Your task to perform on an android device: uninstall "DuckDuckGo Privacy Browser" Image 0: 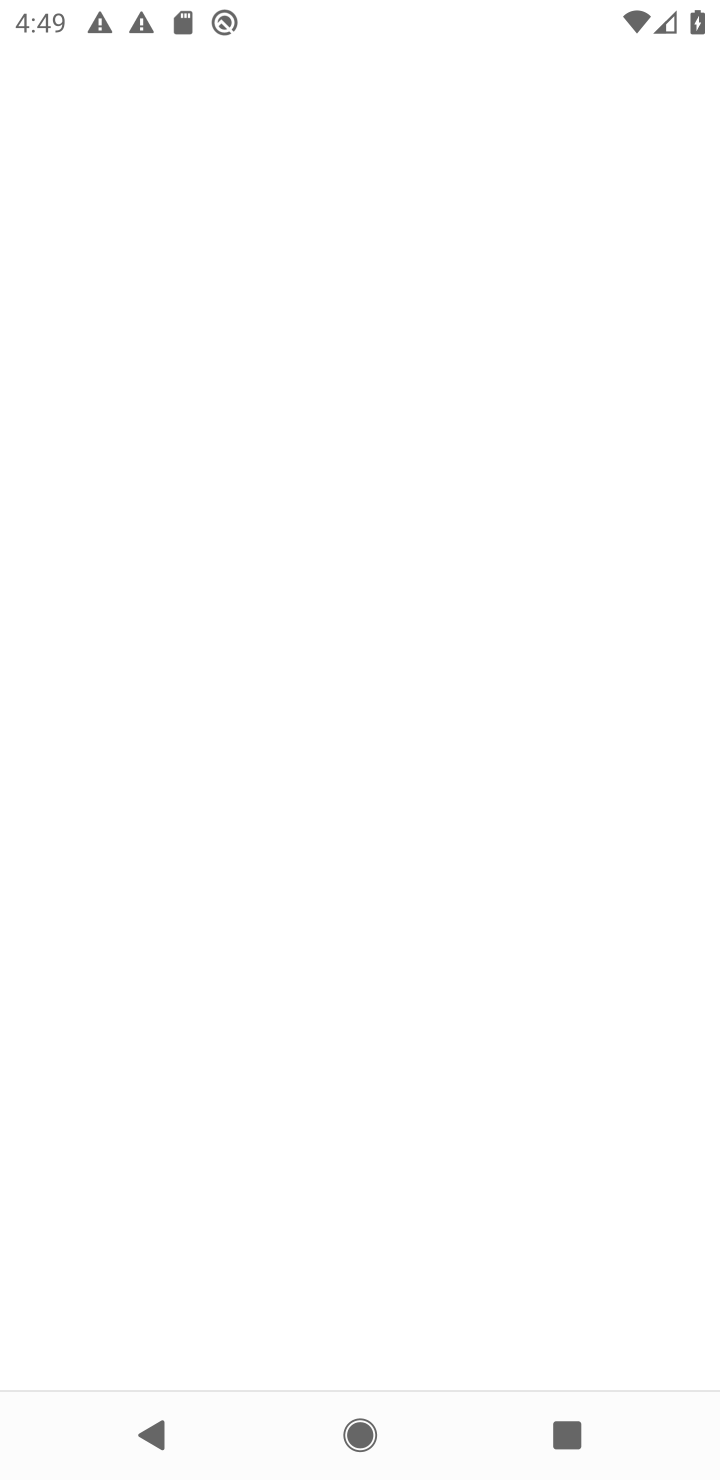
Step 0: click (320, 119)
Your task to perform on an android device: uninstall "DuckDuckGo Privacy Browser" Image 1: 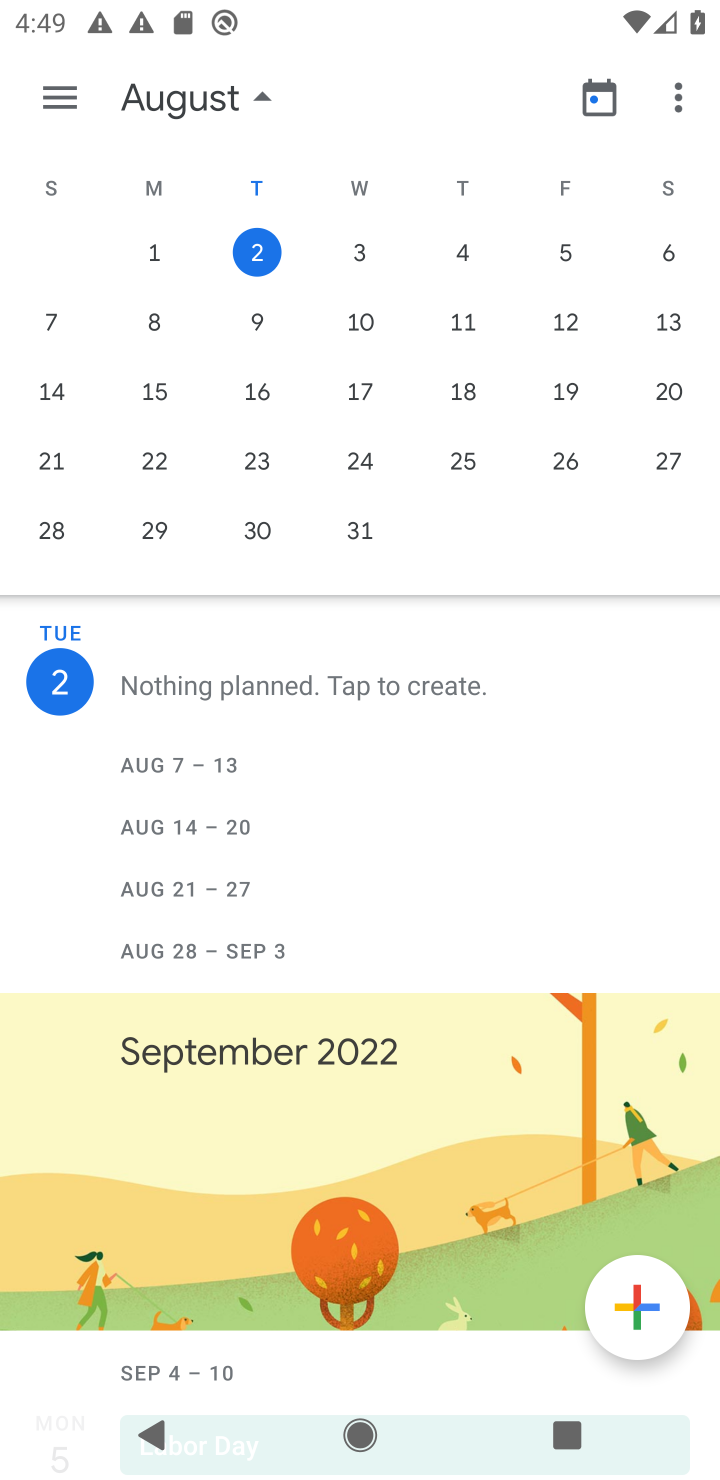
Step 1: press home button
Your task to perform on an android device: uninstall "DuckDuckGo Privacy Browser" Image 2: 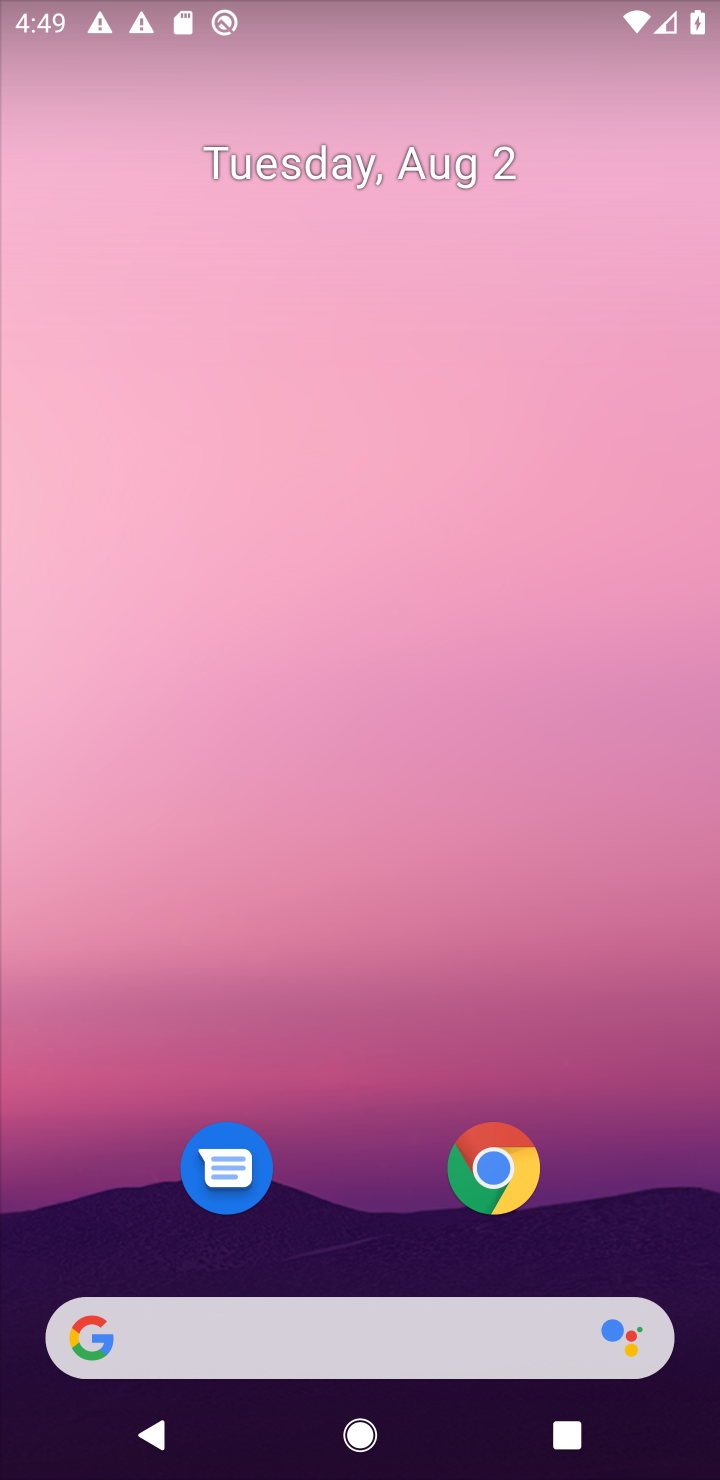
Step 2: drag from (292, 1223) to (331, 3)
Your task to perform on an android device: uninstall "DuckDuckGo Privacy Browser" Image 3: 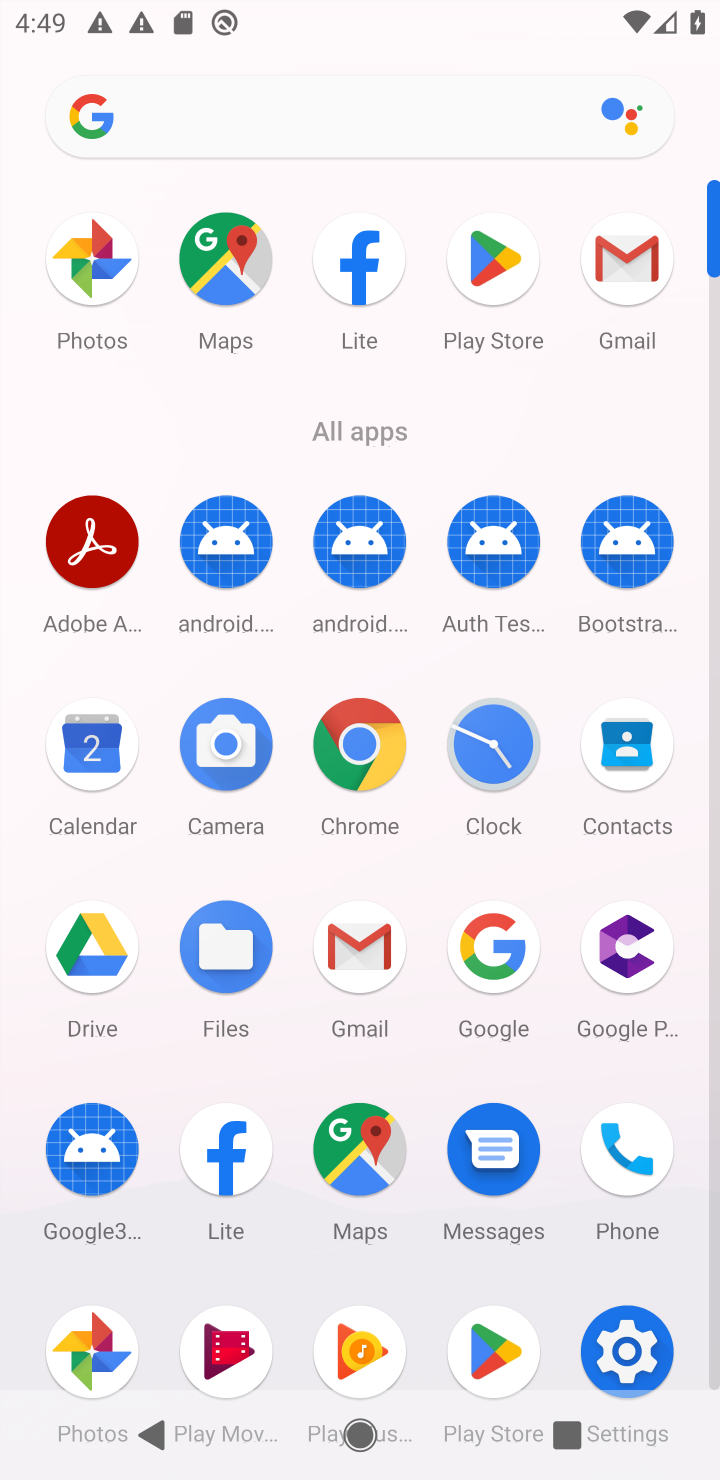
Step 3: click (511, 293)
Your task to perform on an android device: uninstall "DuckDuckGo Privacy Browser" Image 4: 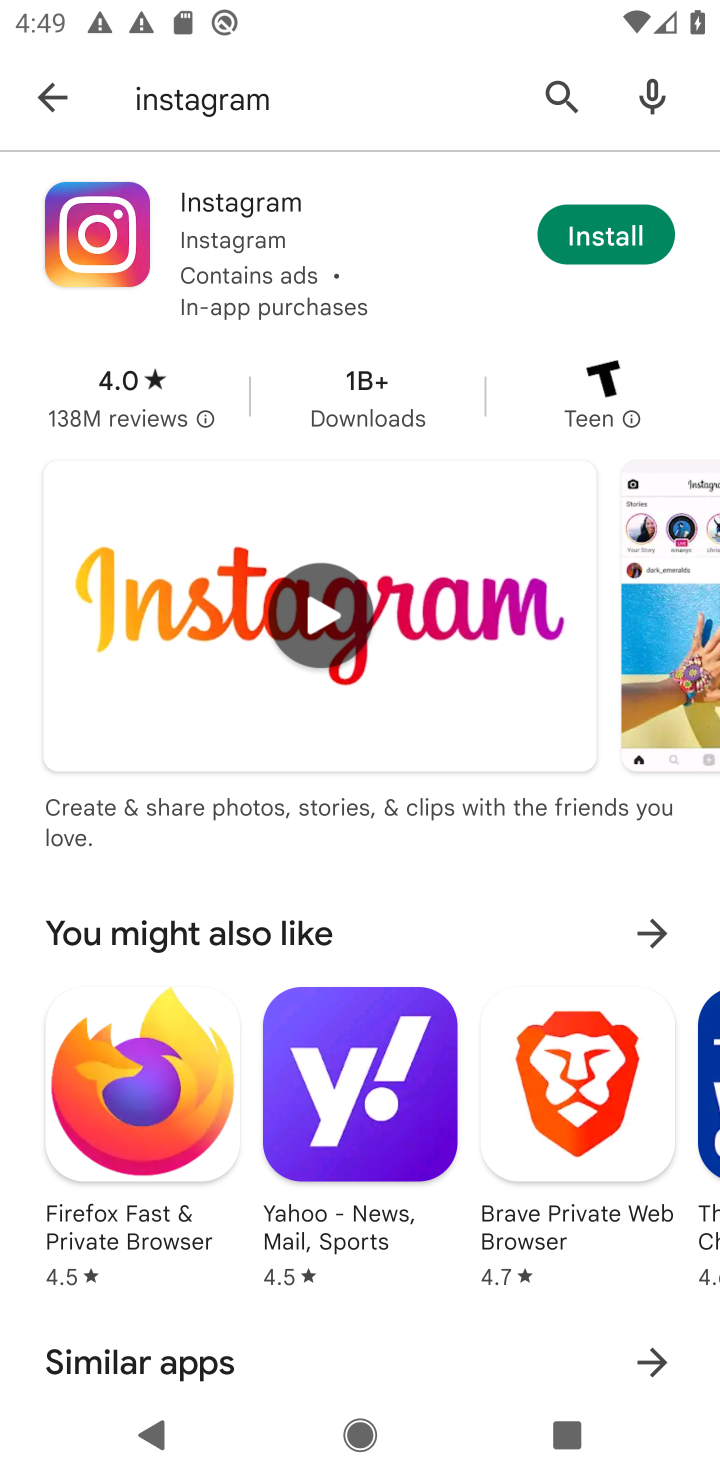
Step 4: click (278, 85)
Your task to perform on an android device: uninstall "DuckDuckGo Privacy Browser" Image 5: 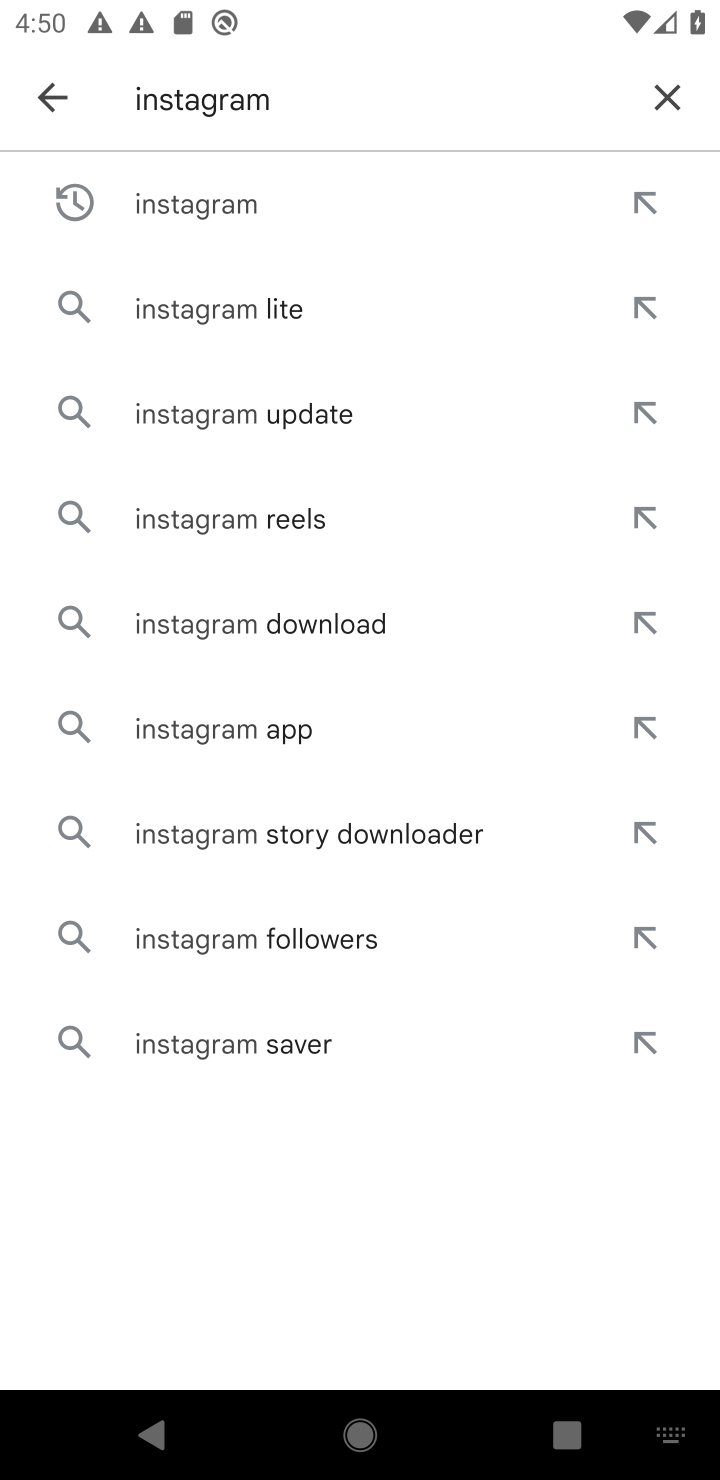
Step 5: click (667, 87)
Your task to perform on an android device: uninstall "DuckDuckGo Privacy Browser" Image 6: 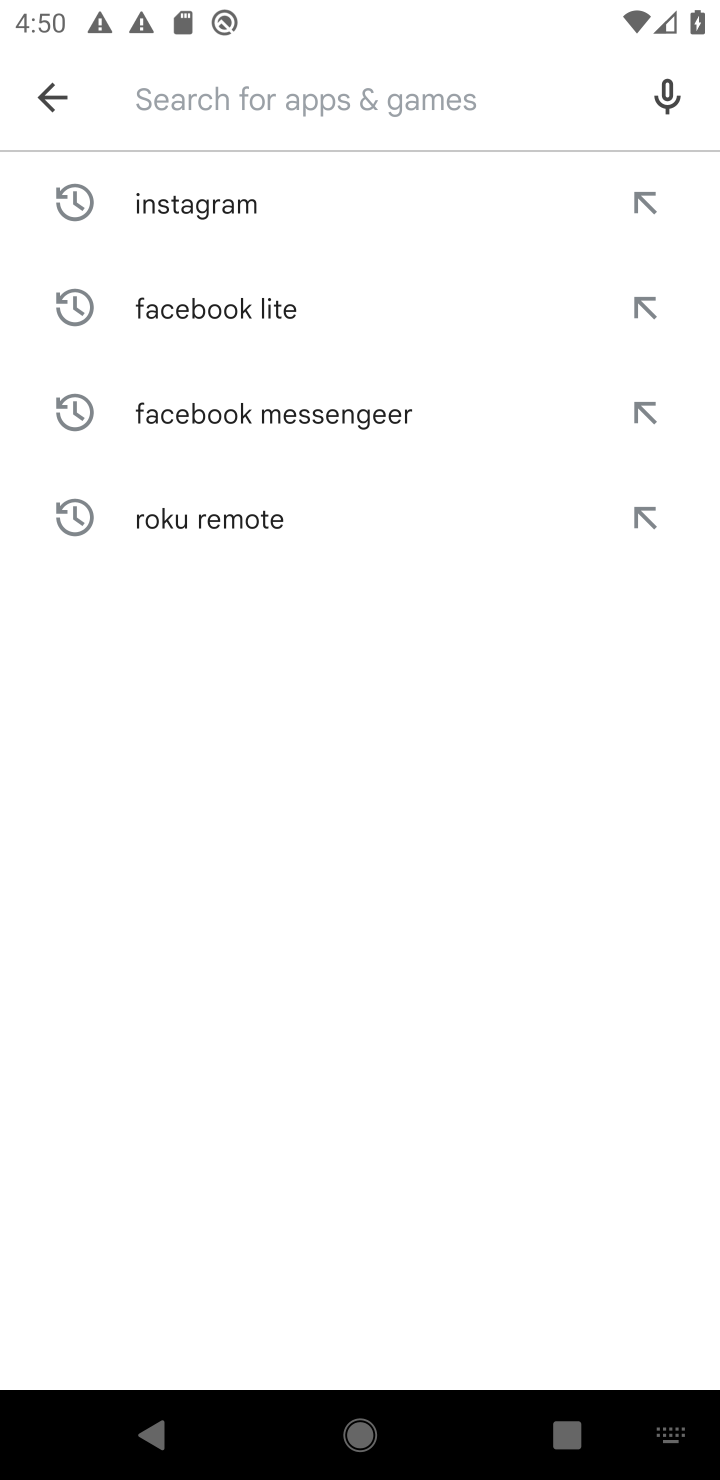
Step 6: type "Duckduckgo"
Your task to perform on an android device: uninstall "DuckDuckGo Privacy Browser" Image 7: 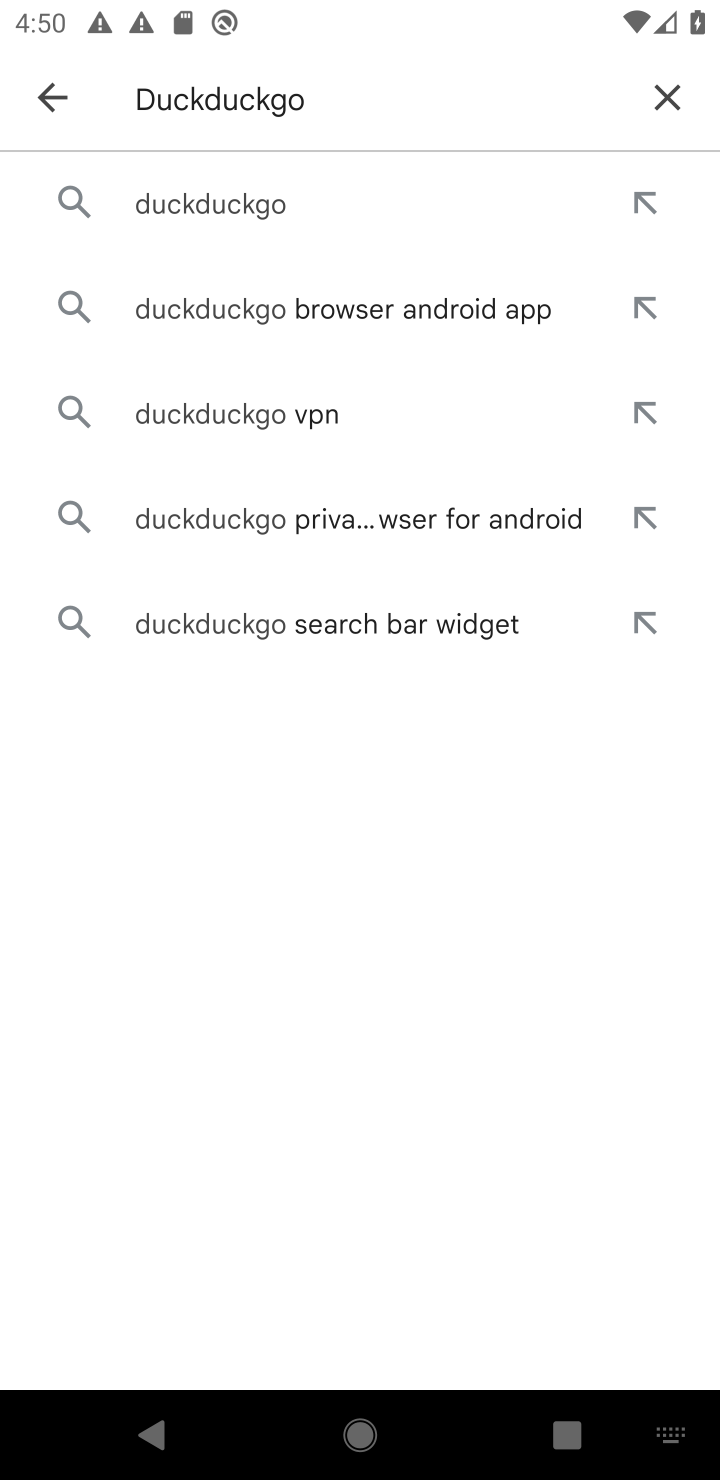
Step 7: click (223, 211)
Your task to perform on an android device: uninstall "DuckDuckGo Privacy Browser" Image 8: 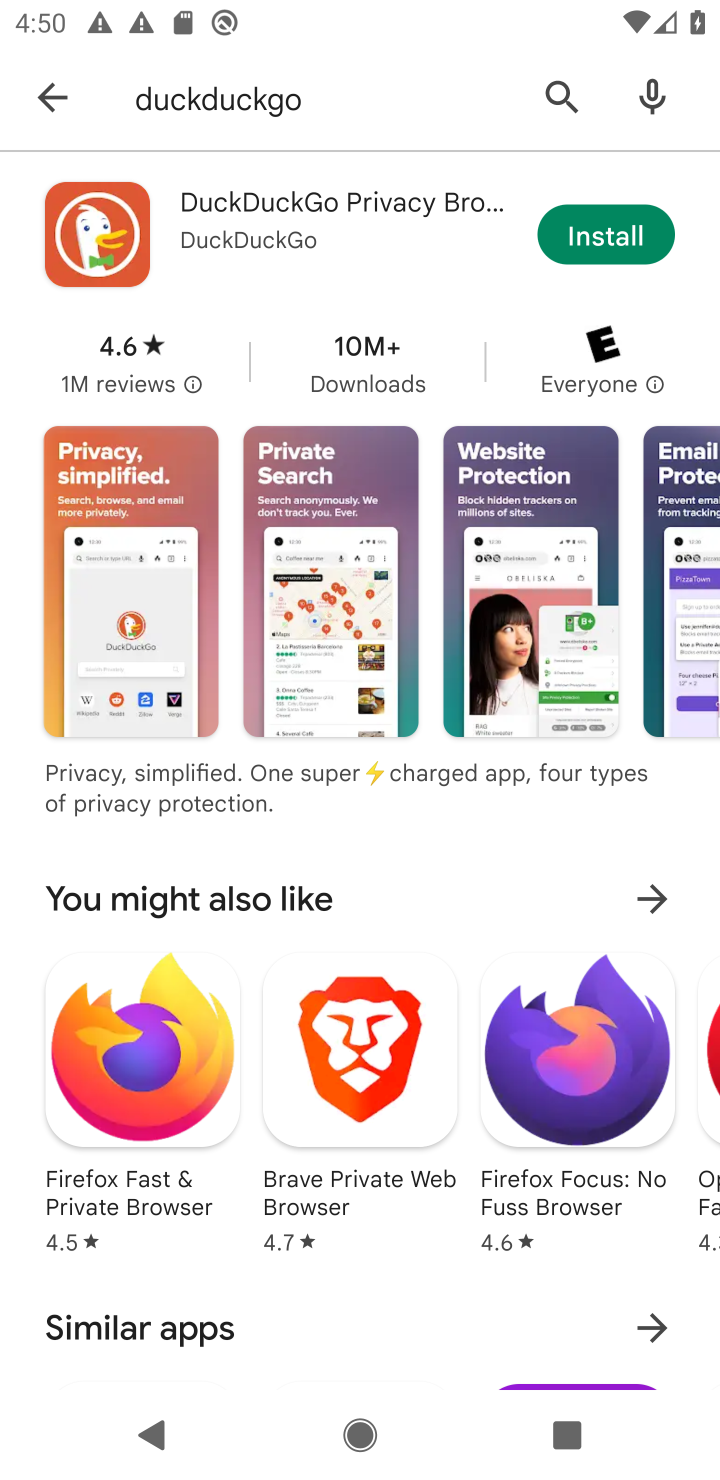
Step 8: task complete